Your task to perform on an android device: Is it going to rain tomorrow? Image 0: 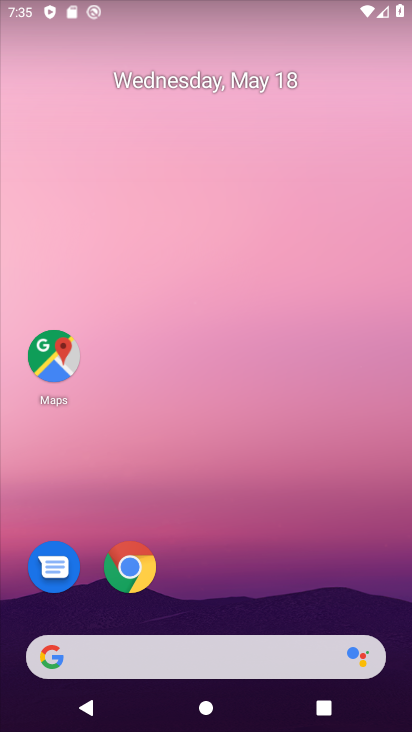
Step 0: drag from (340, 618) to (298, 154)
Your task to perform on an android device: Is it going to rain tomorrow? Image 1: 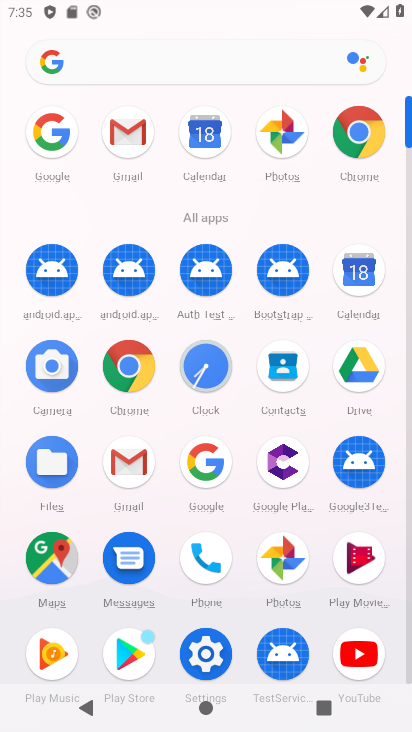
Step 1: click (225, 482)
Your task to perform on an android device: Is it going to rain tomorrow? Image 2: 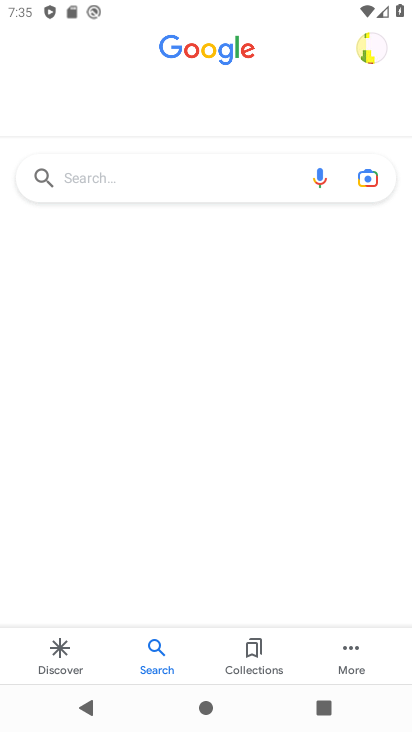
Step 2: click (167, 205)
Your task to perform on an android device: Is it going to rain tomorrow? Image 3: 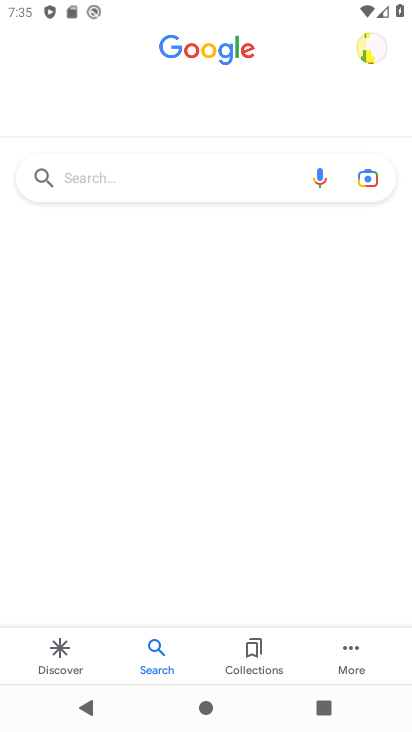
Step 3: click (192, 180)
Your task to perform on an android device: Is it going to rain tomorrow? Image 4: 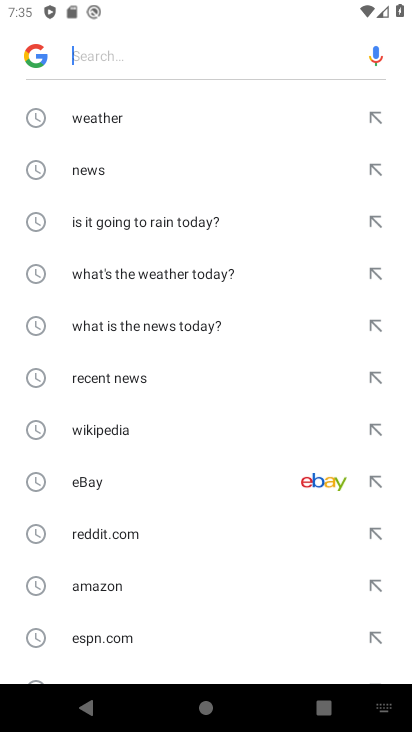
Step 4: click (142, 125)
Your task to perform on an android device: Is it going to rain tomorrow? Image 5: 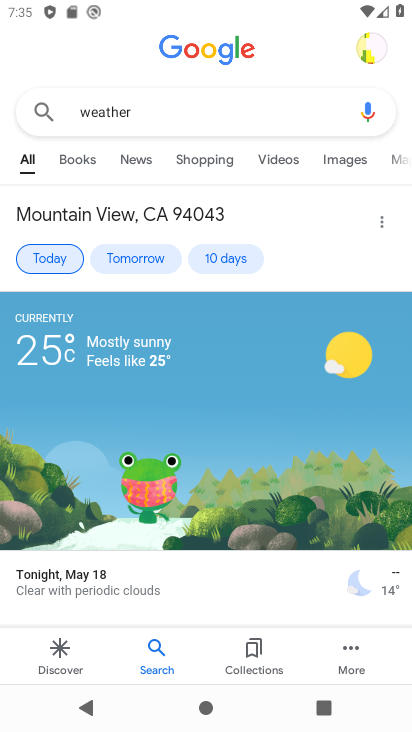
Step 5: click (151, 255)
Your task to perform on an android device: Is it going to rain tomorrow? Image 6: 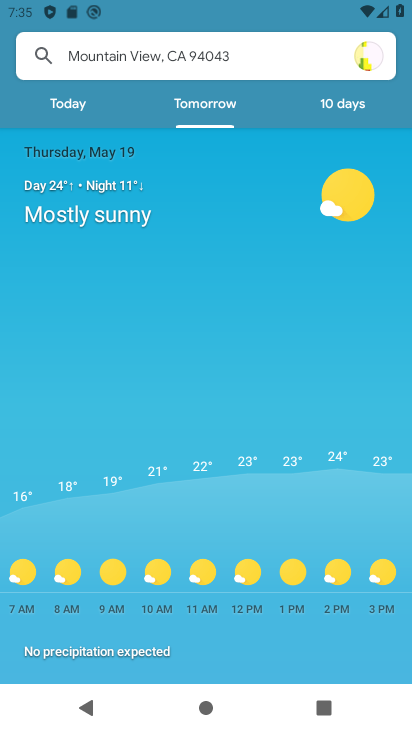
Step 6: task complete